Your task to perform on an android device: What's the weather today? Image 0: 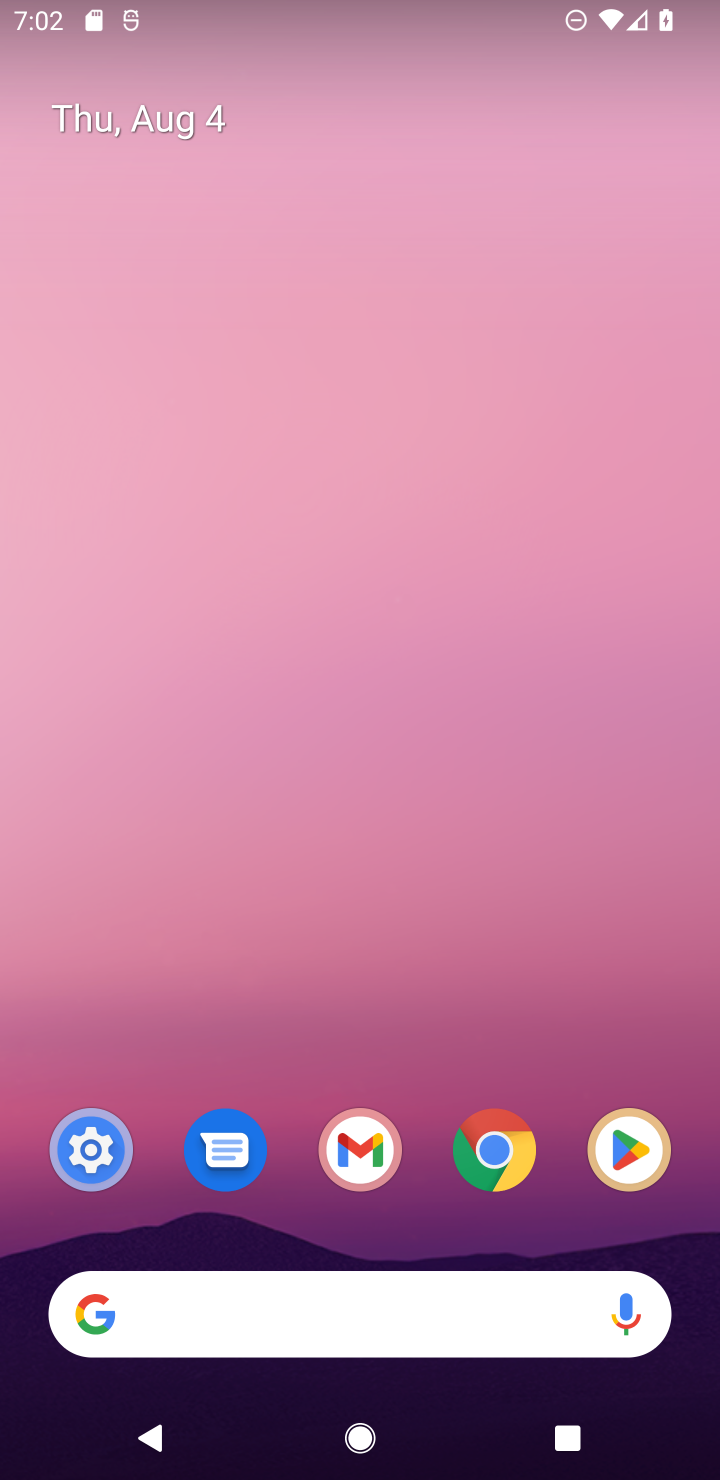
Step 0: drag from (453, 1092) to (489, 0)
Your task to perform on an android device: What's the weather today? Image 1: 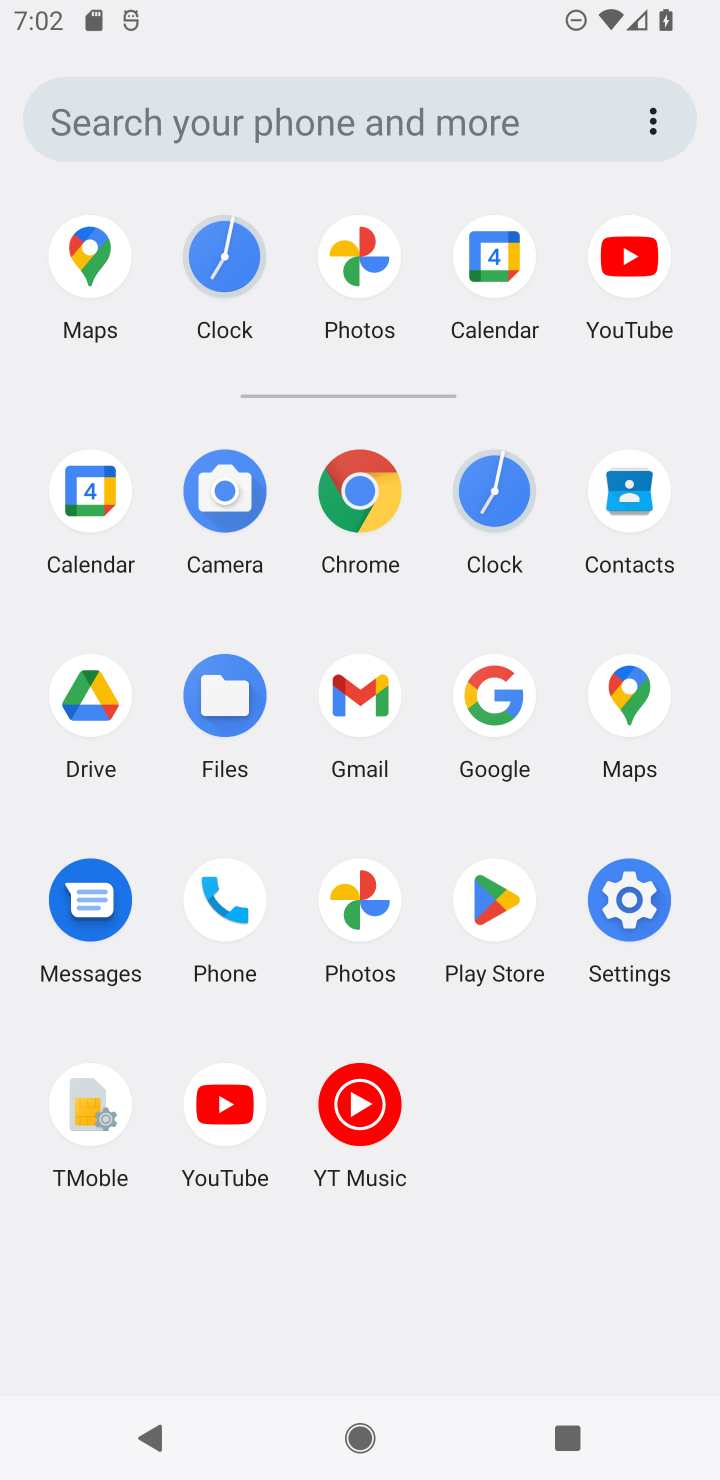
Step 1: click (363, 490)
Your task to perform on an android device: What's the weather today? Image 2: 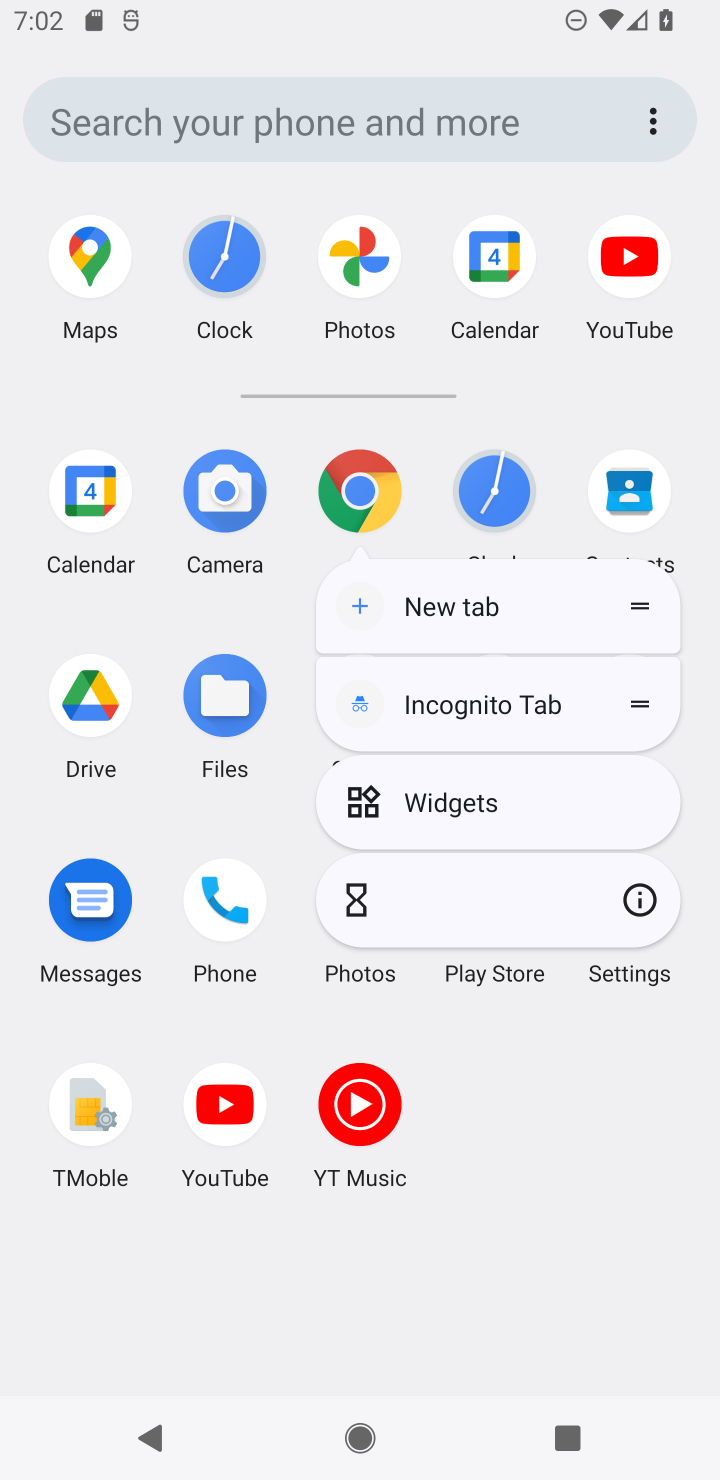
Step 2: click (363, 490)
Your task to perform on an android device: What's the weather today? Image 3: 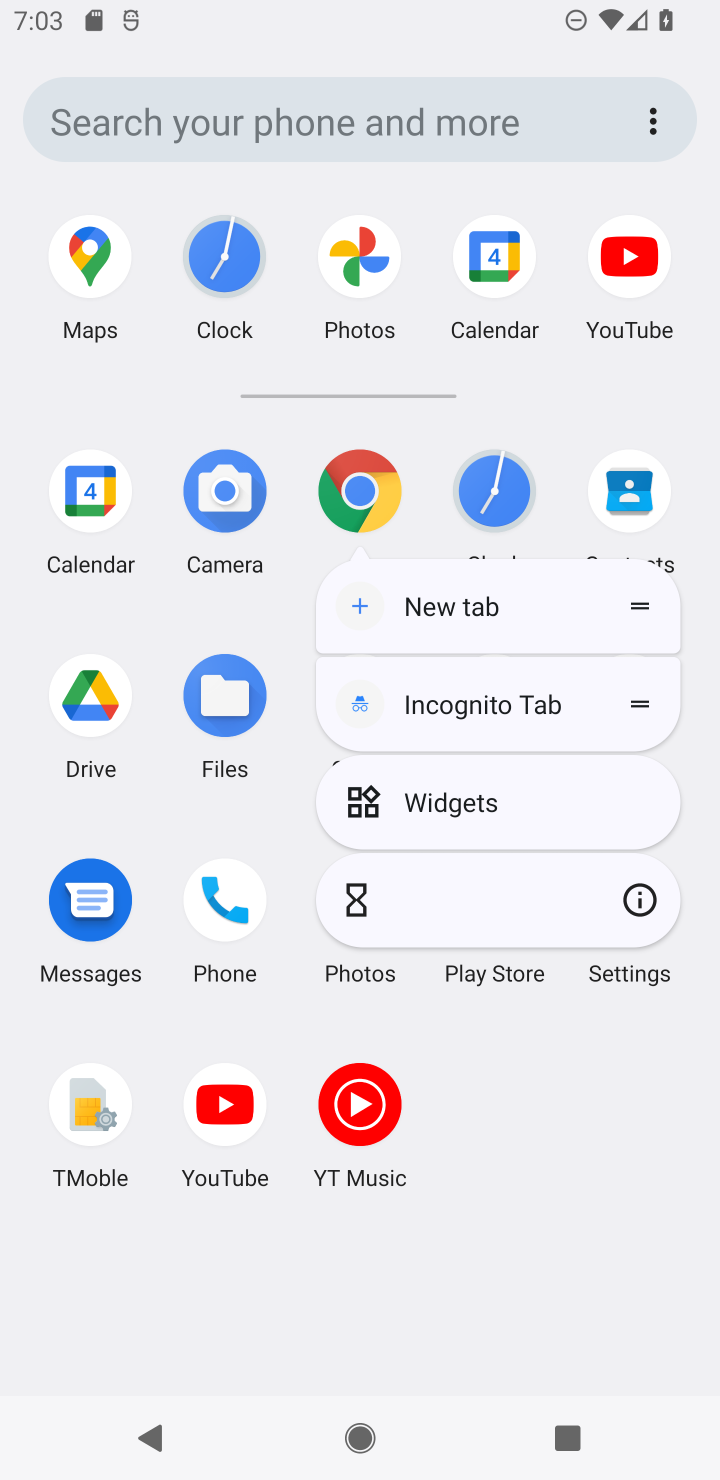
Step 3: click (363, 490)
Your task to perform on an android device: What's the weather today? Image 4: 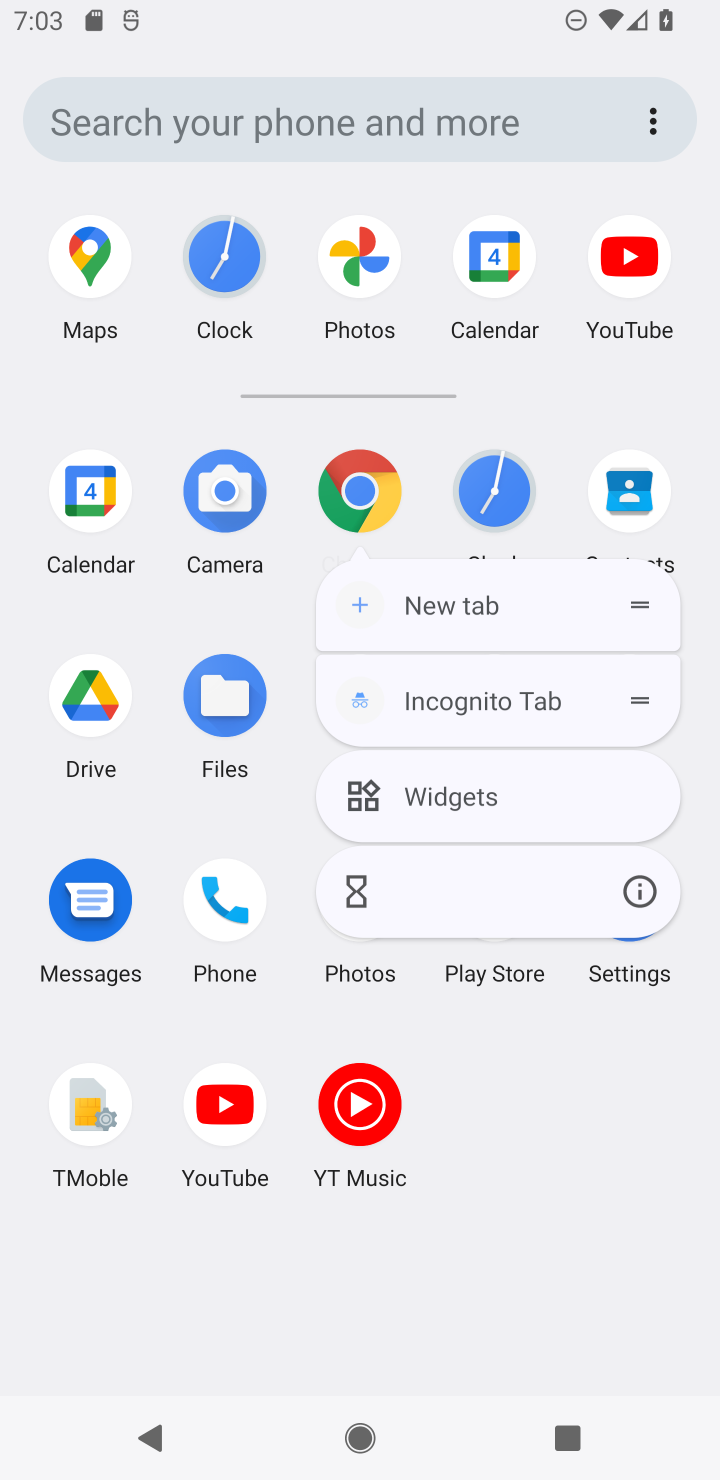
Step 4: click (363, 490)
Your task to perform on an android device: What's the weather today? Image 5: 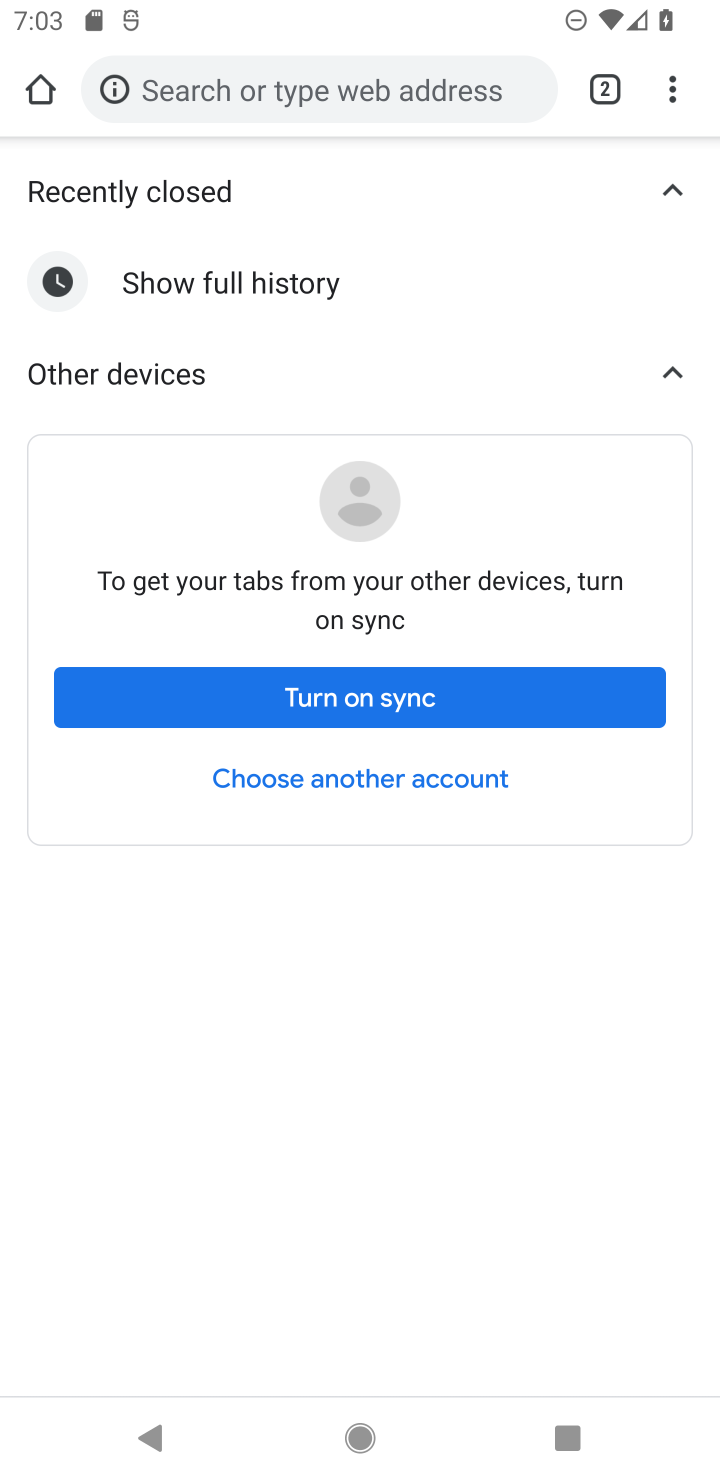
Step 5: click (346, 72)
Your task to perform on an android device: What's the weather today? Image 6: 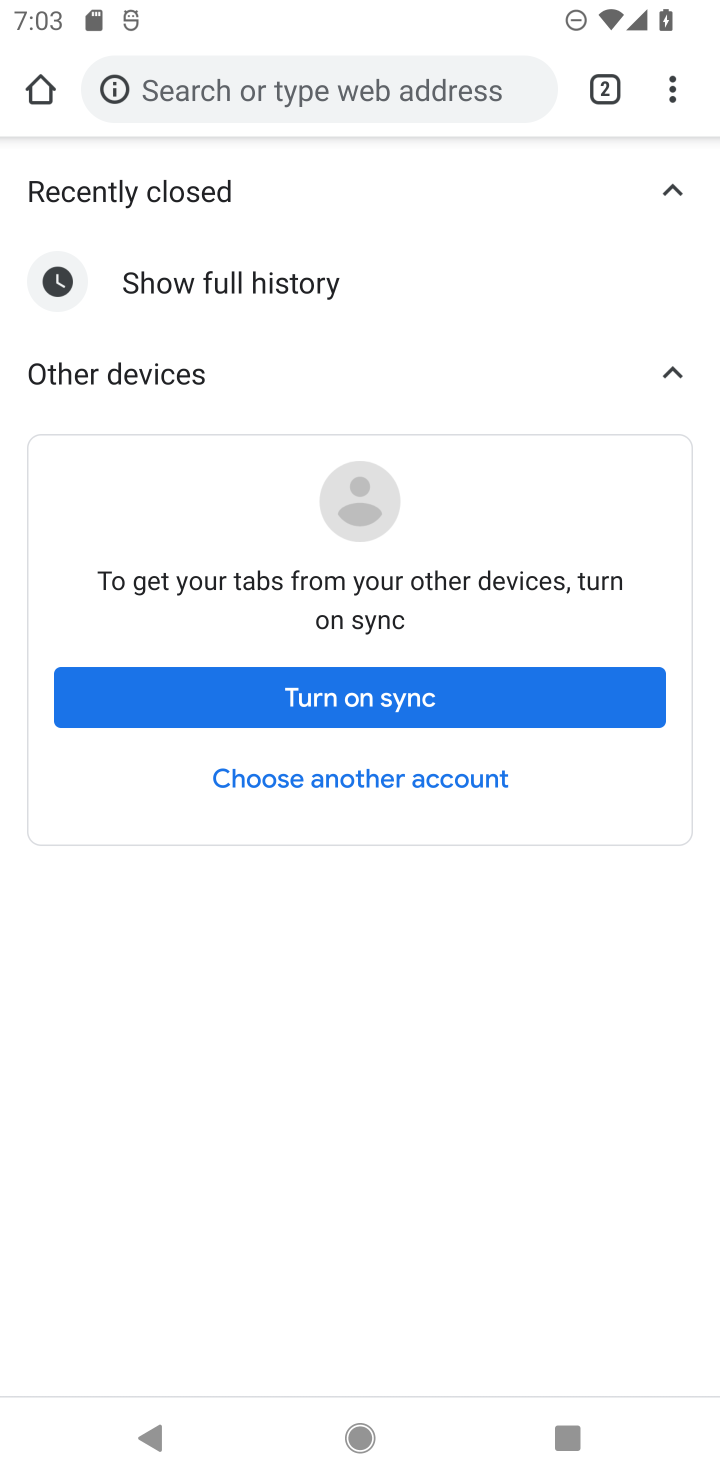
Step 6: click (231, 75)
Your task to perform on an android device: What's the weather today? Image 7: 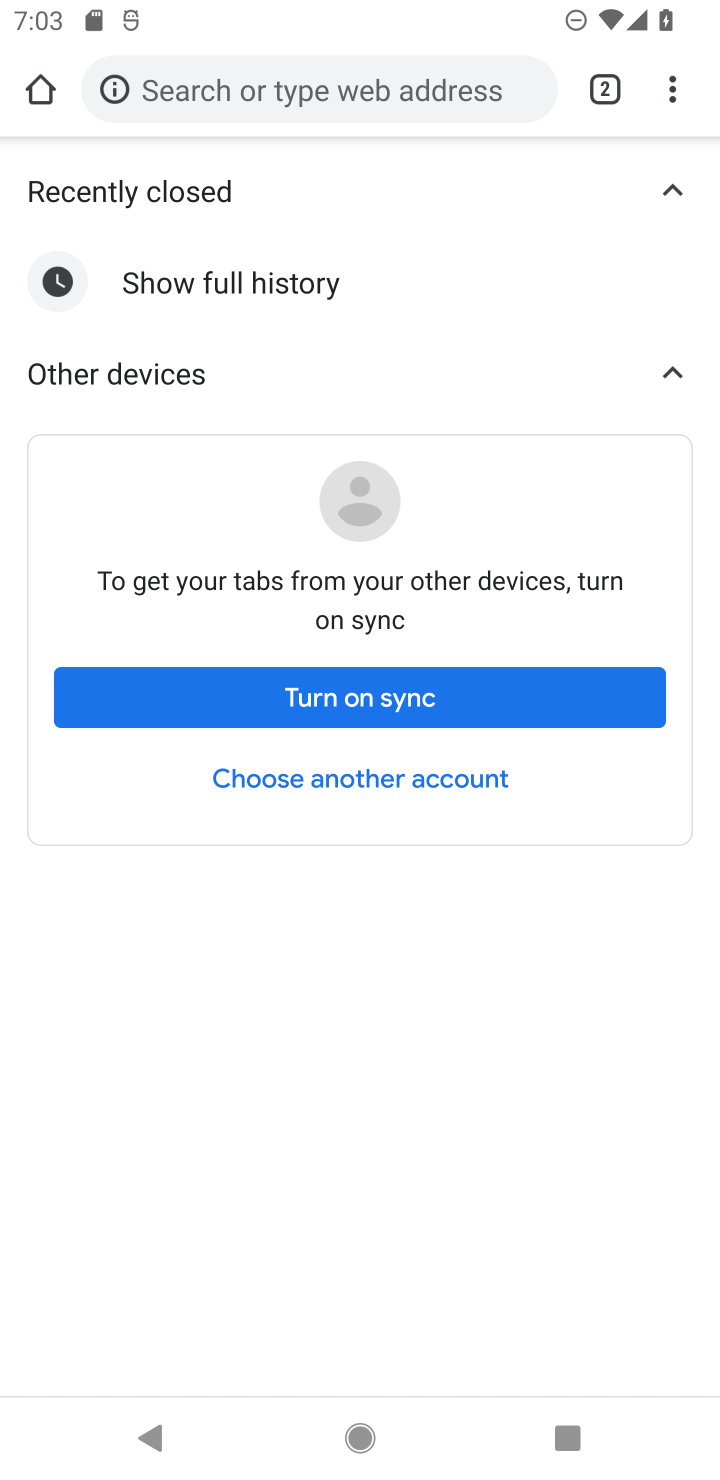
Step 7: click (262, 63)
Your task to perform on an android device: What's the weather today? Image 8: 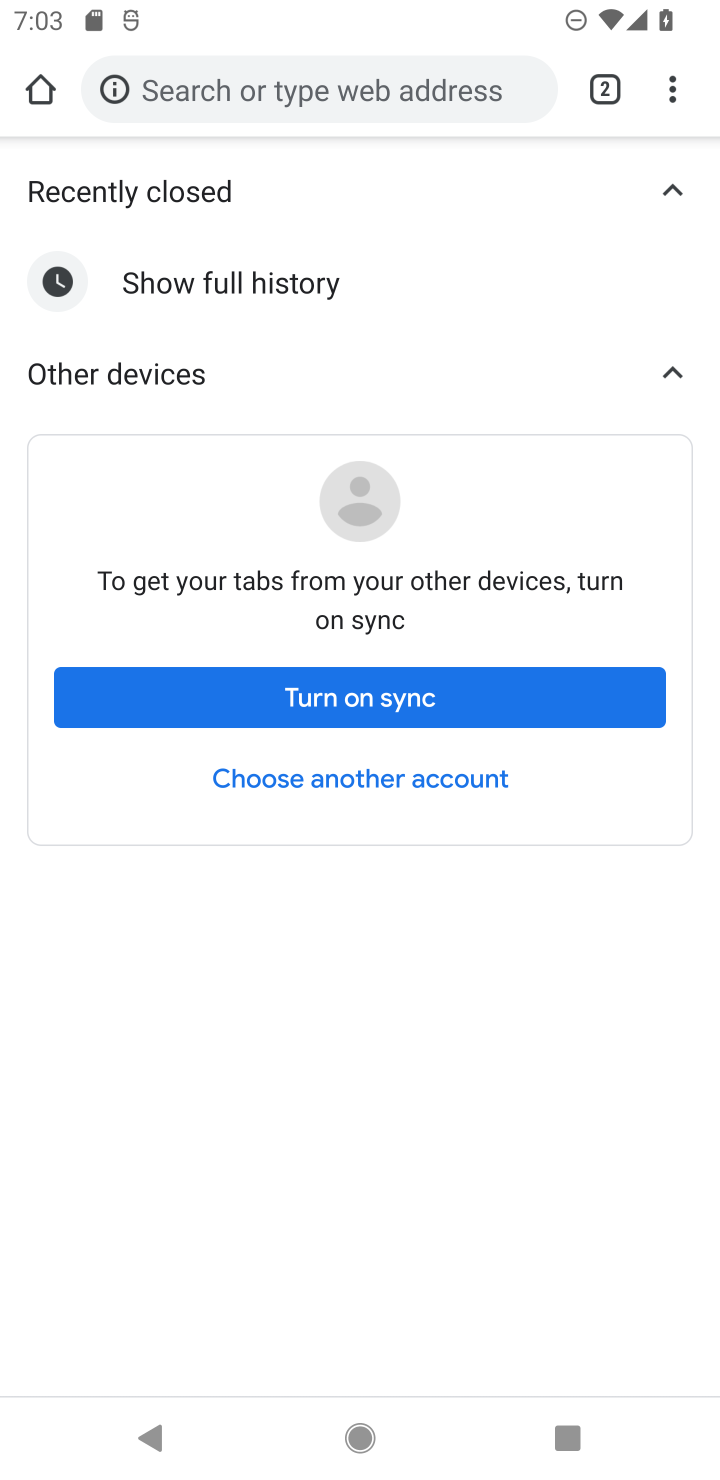
Step 8: click (246, 86)
Your task to perform on an android device: What's the weather today? Image 9: 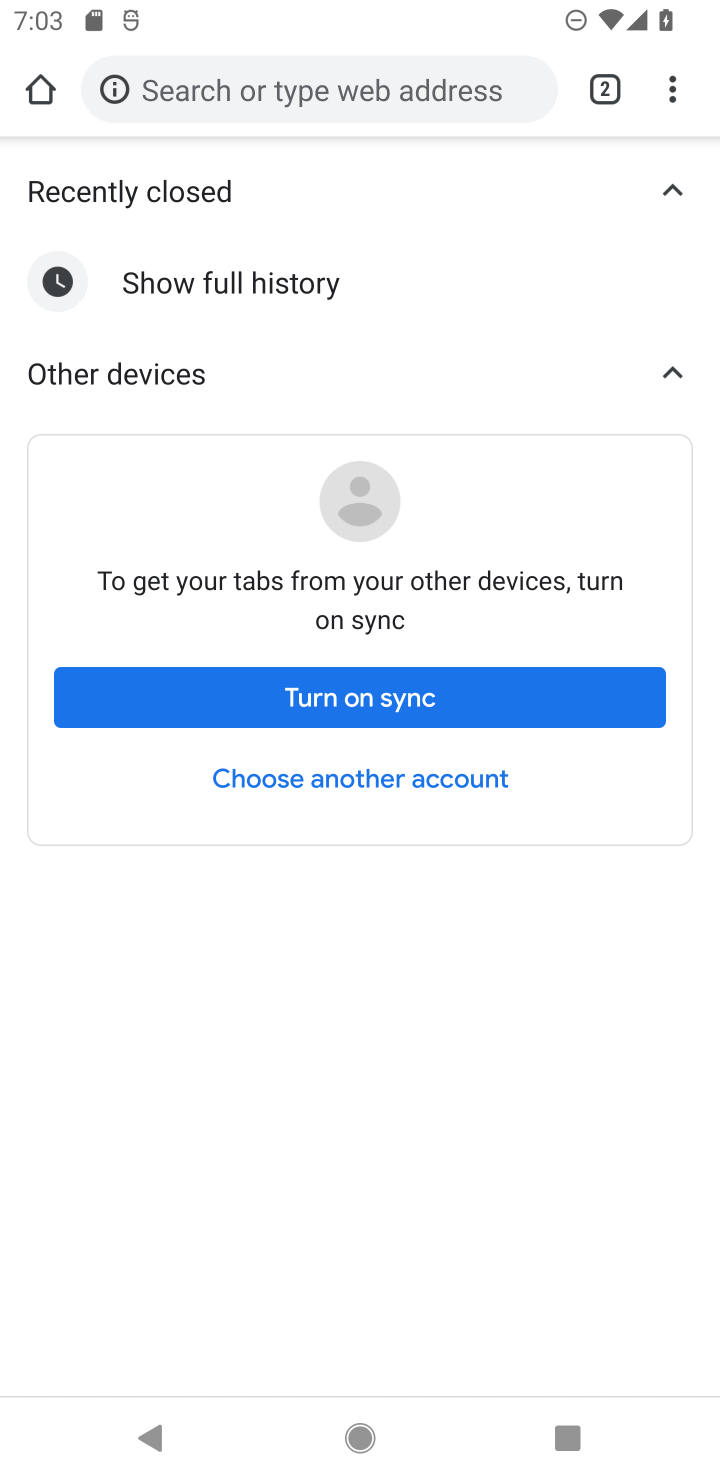
Step 9: click (246, 86)
Your task to perform on an android device: What's the weather today? Image 10: 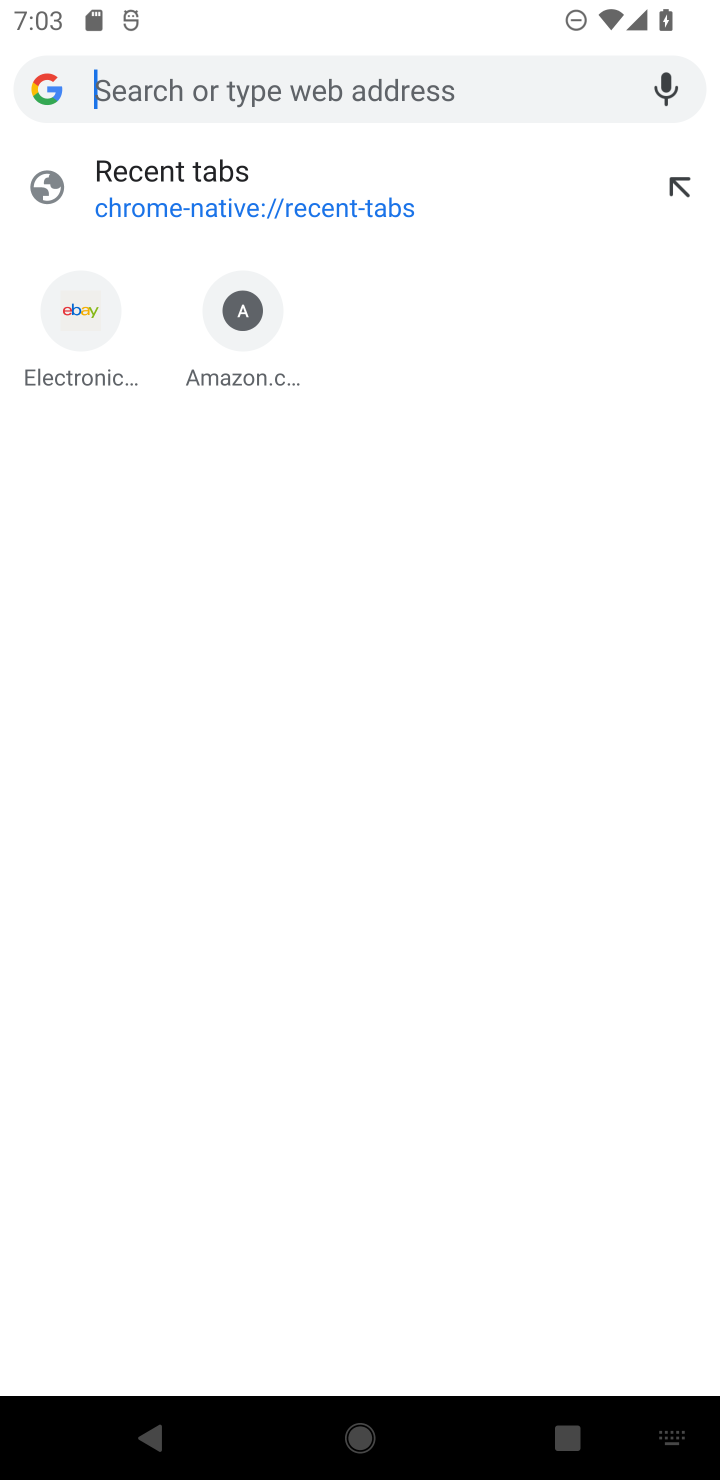
Step 10: type "weather today"
Your task to perform on an android device: What's the weather today? Image 11: 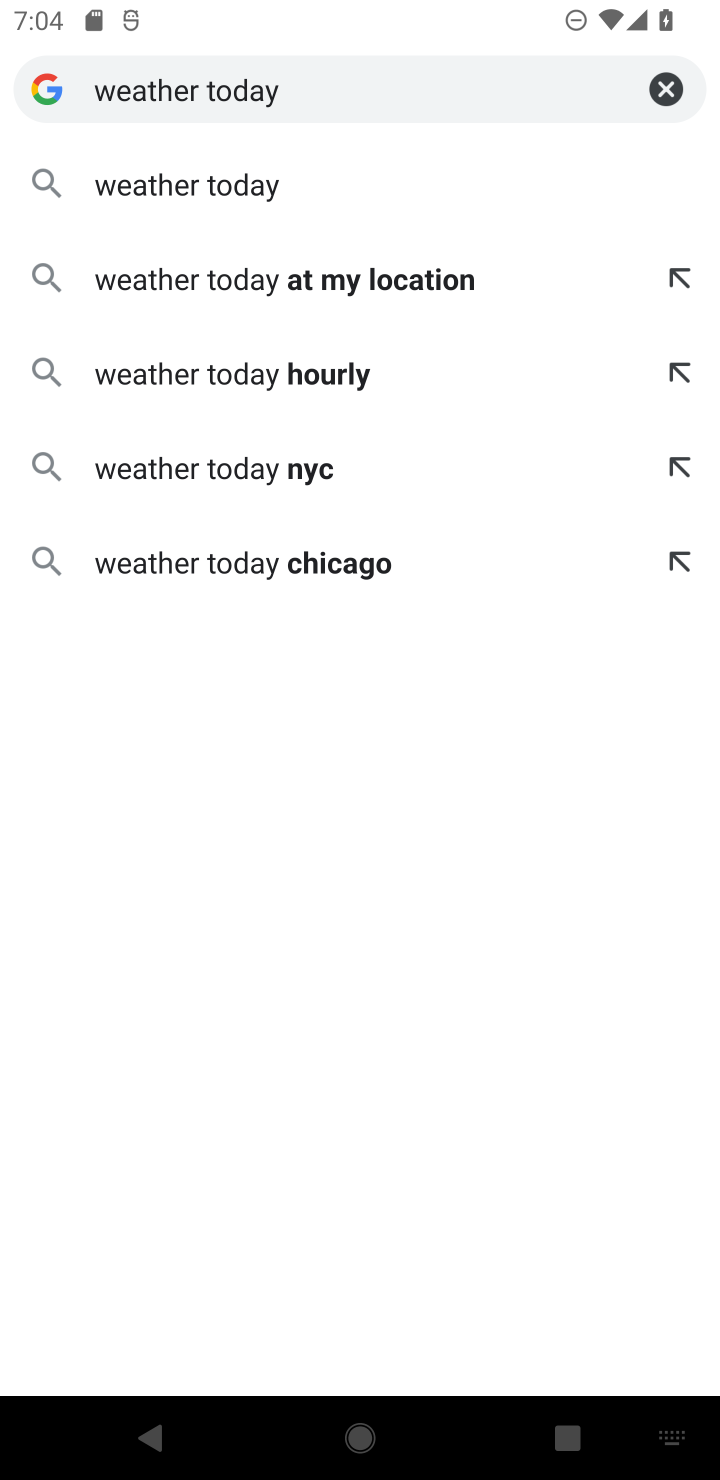
Step 11: click (92, 188)
Your task to perform on an android device: What's the weather today? Image 12: 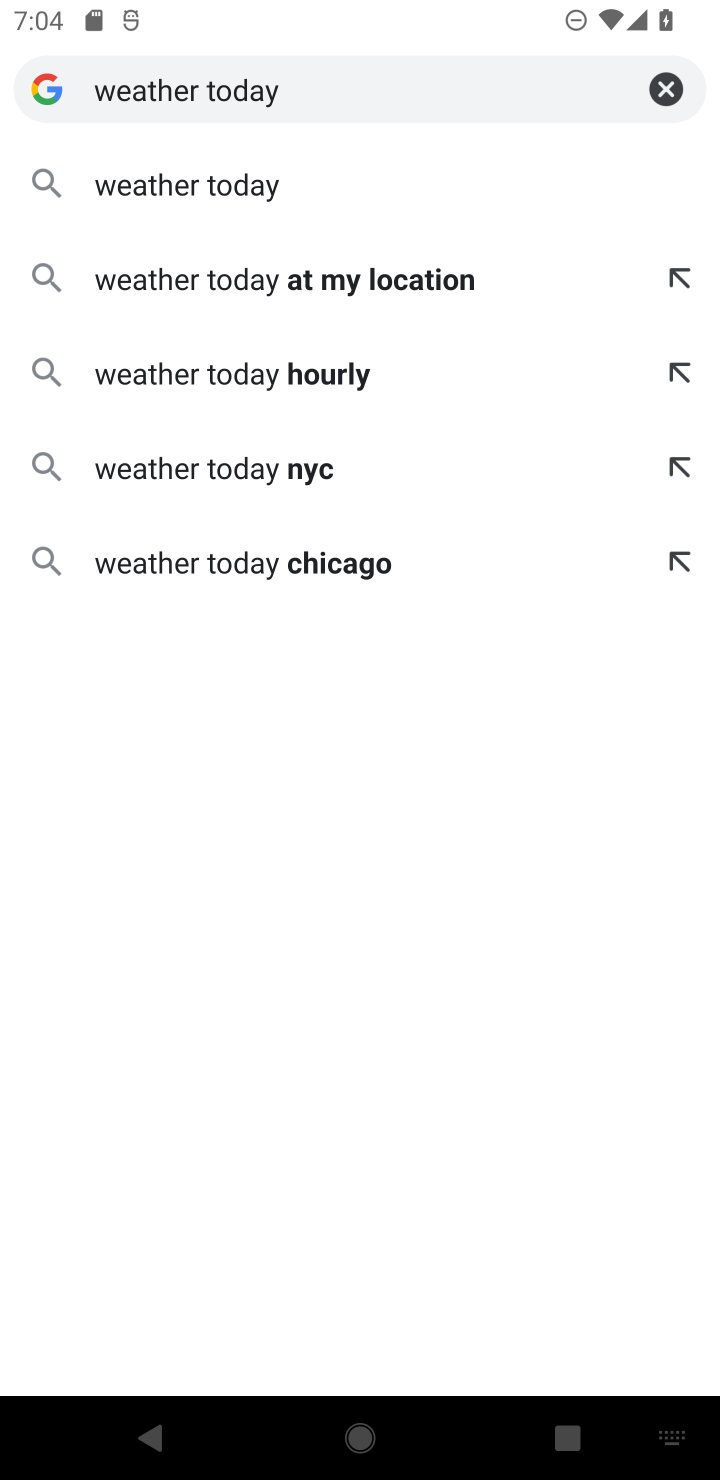
Step 12: click (318, 186)
Your task to perform on an android device: What's the weather today? Image 13: 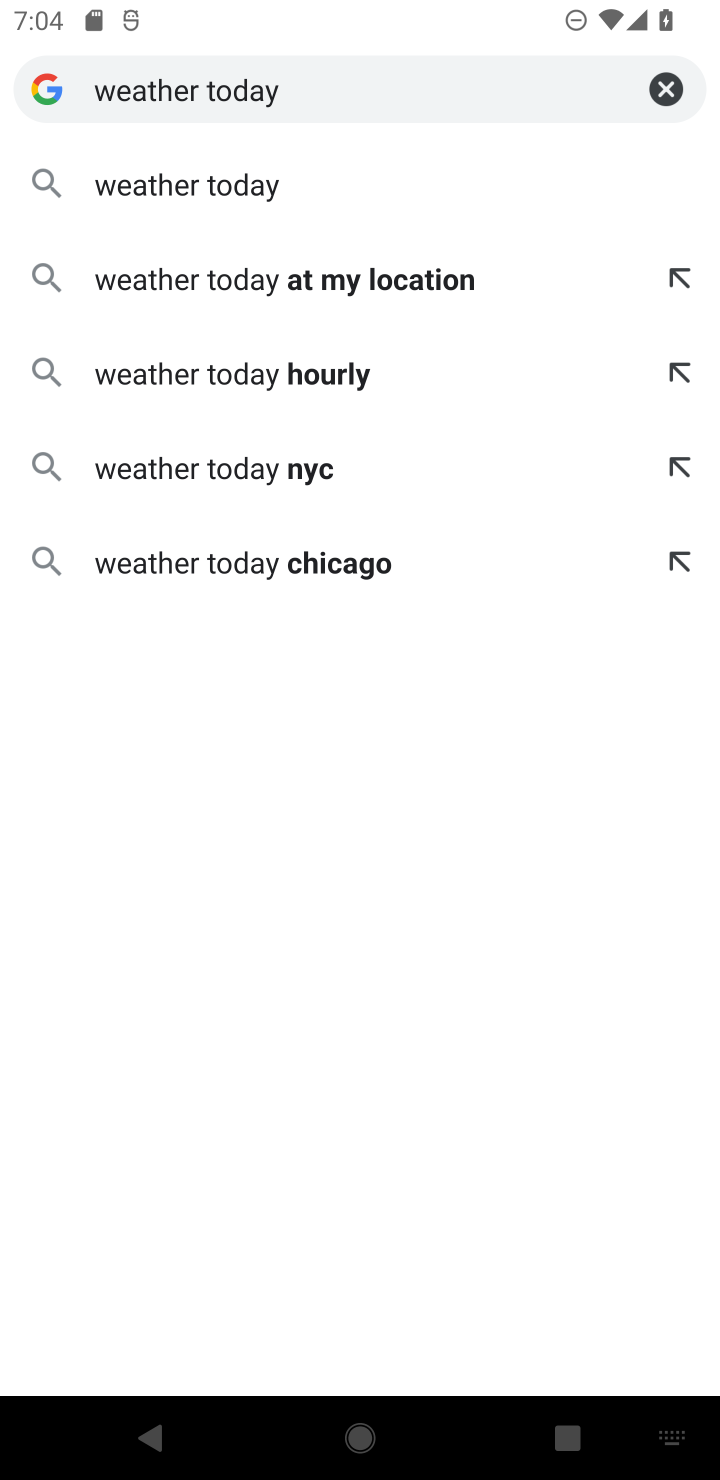
Step 13: click (317, 184)
Your task to perform on an android device: What's the weather today? Image 14: 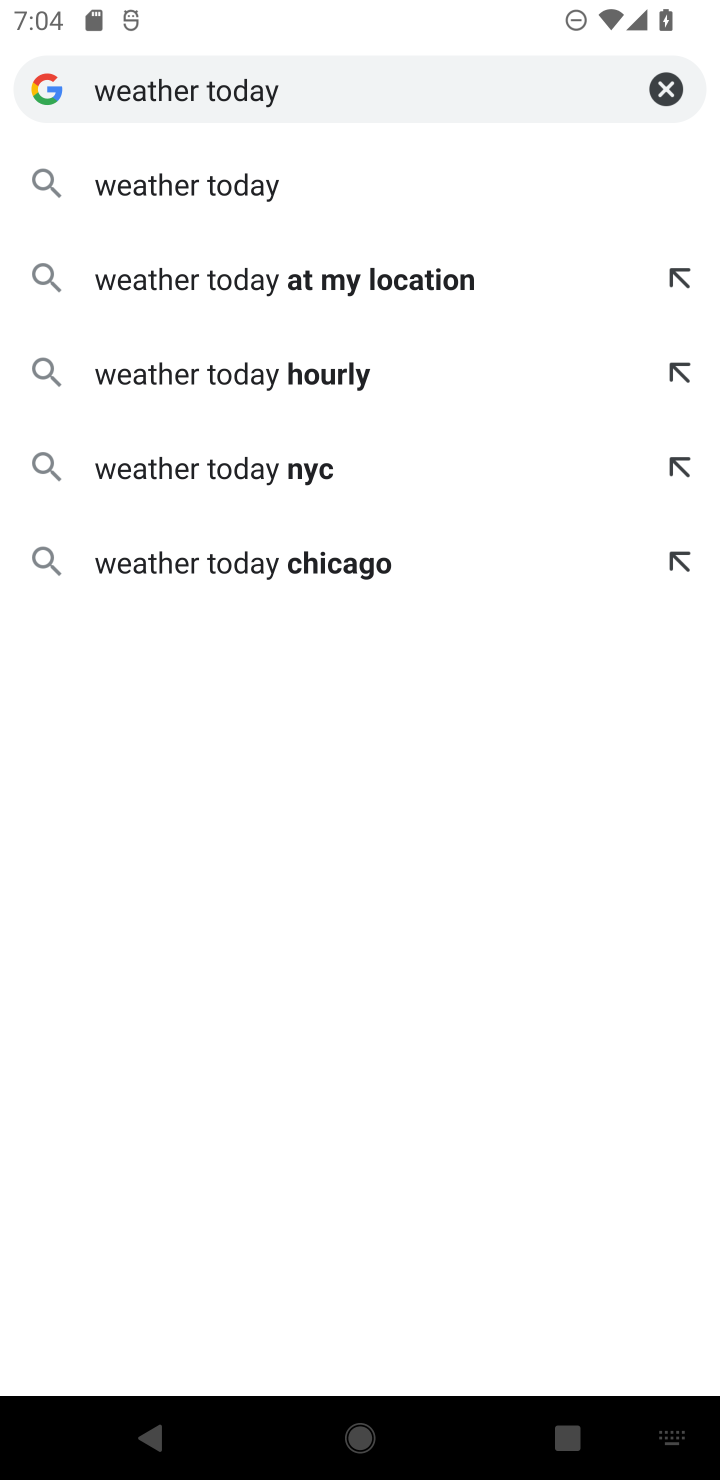
Step 14: click (300, 220)
Your task to perform on an android device: What's the weather today? Image 15: 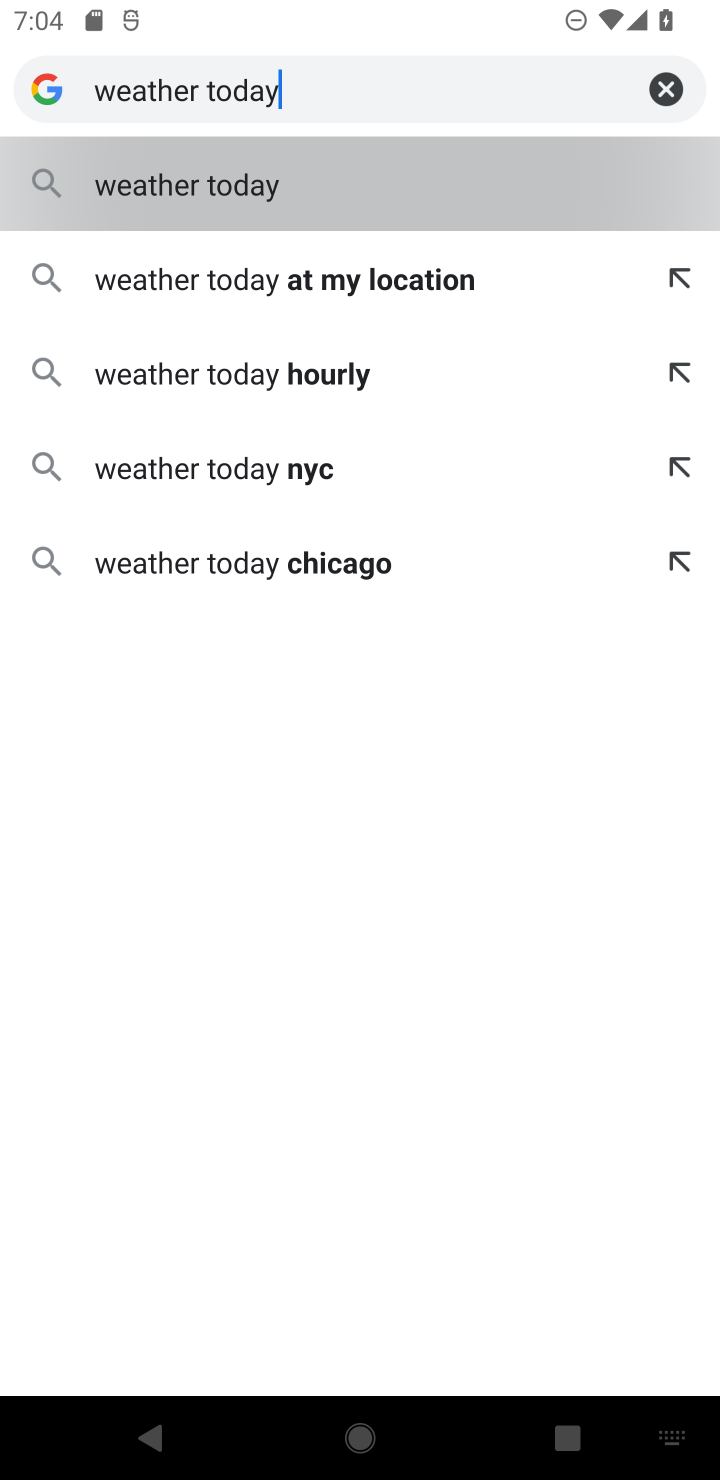
Step 15: click (266, 186)
Your task to perform on an android device: What's the weather today? Image 16: 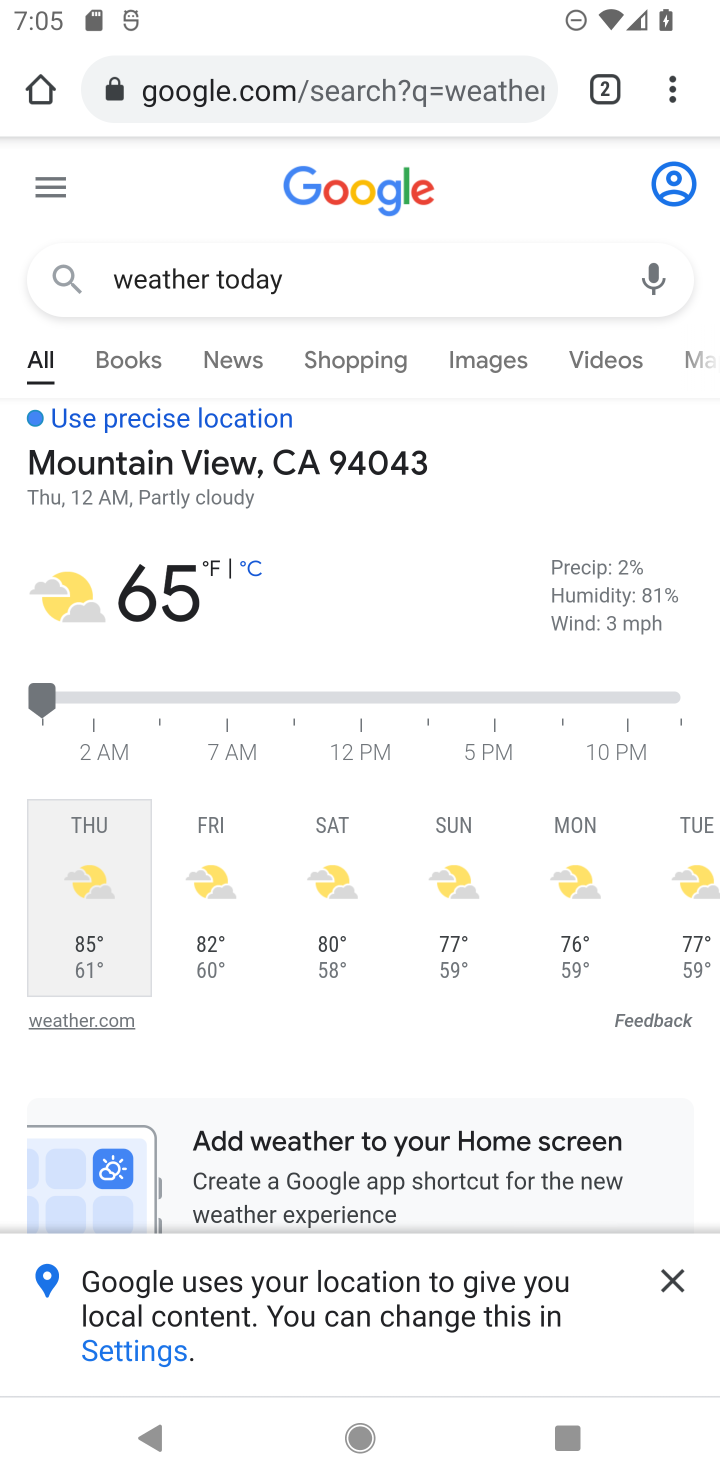
Step 16: task complete